Your task to perform on an android device: empty trash in google photos Image 0: 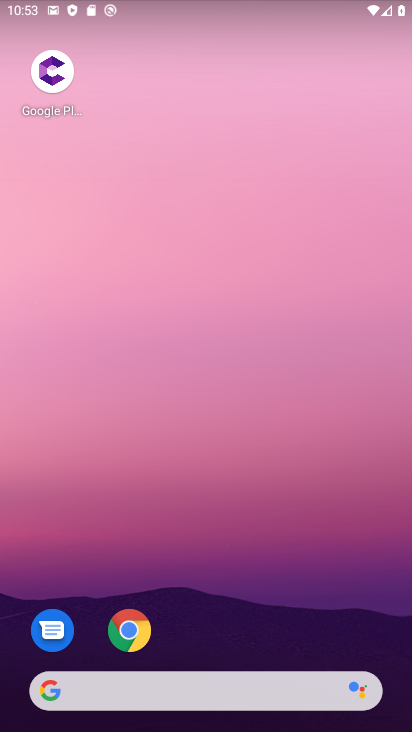
Step 0: drag from (400, 654) to (250, 5)
Your task to perform on an android device: empty trash in google photos Image 1: 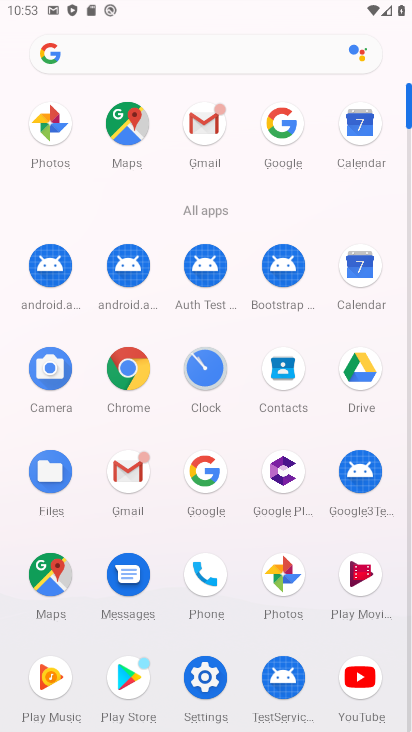
Step 1: click (278, 571)
Your task to perform on an android device: empty trash in google photos Image 2: 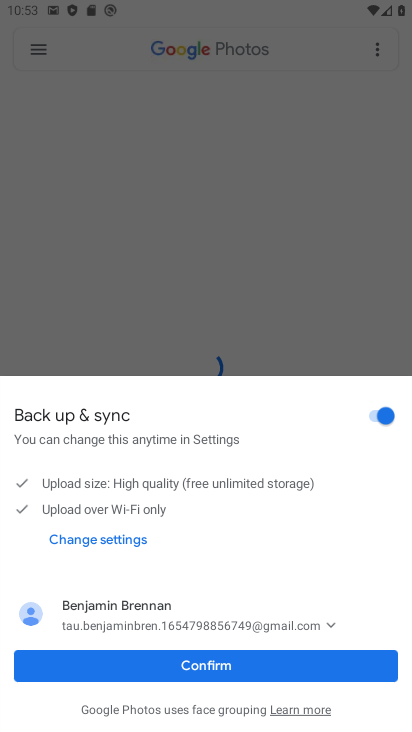
Step 2: click (126, 670)
Your task to perform on an android device: empty trash in google photos Image 3: 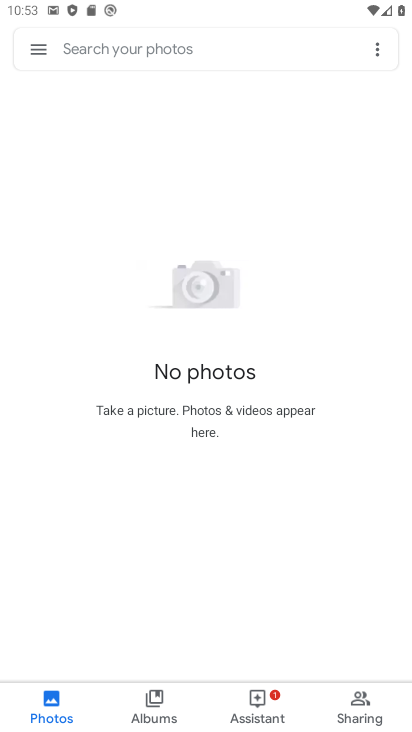
Step 3: click (47, 62)
Your task to perform on an android device: empty trash in google photos Image 4: 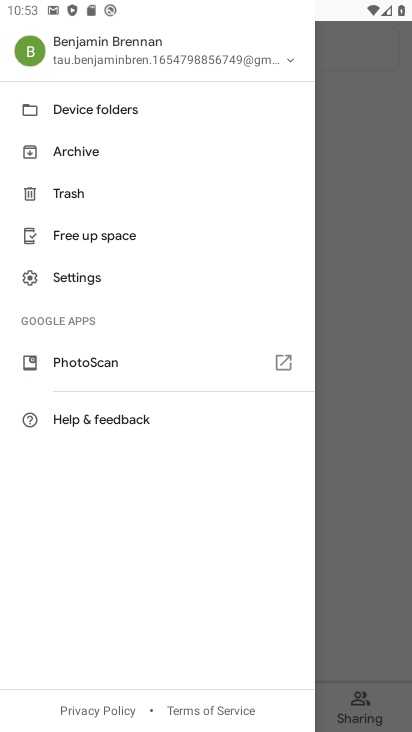
Step 4: click (69, 204)
Your task to perform on an android device: empty trash in google photos Image 5: 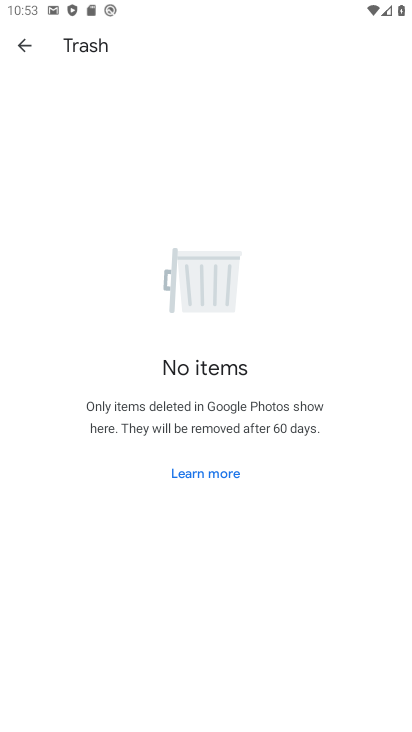
Step 5: task complete